Your task to perform on an android device: Search for usb-c to usb-b on costco, select the first entry, and add it to the cart. Image 0: 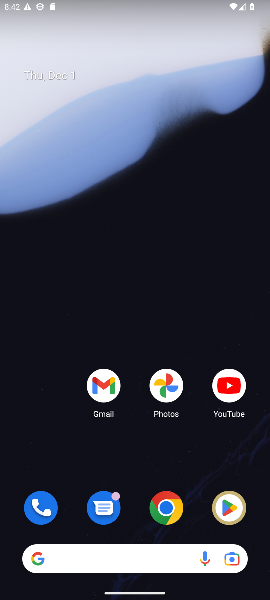
Step 0: click (170, 507)
Your task to perform on an android device: Search for usb-c to usb-b on costco, select the first entry, and add it to the cart. Image 1: 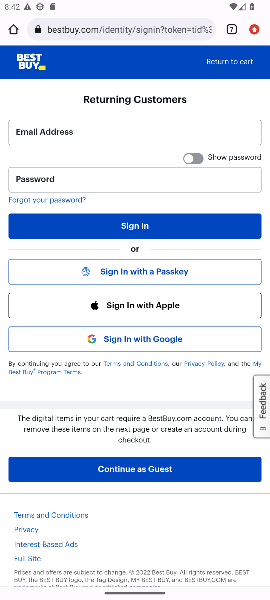
Step 1: click (236, 33)
Your task to perform on an android device: Search for usb-c to usb-b on costco, select the first entry, and add it to the cart. Image 2: 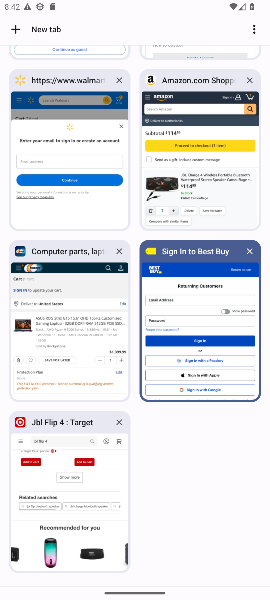
Step 2: drag from (187, 92) to (168, 388)
Your task to perform on an android device: Search for usb-c to usb-b on costco, select the first entry, and add it to the cart. Image 3: 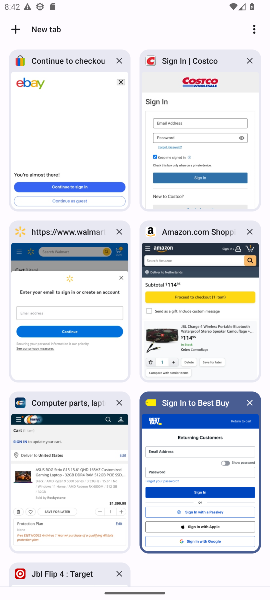
Step 3: click (185, 187)
Your task to perform on an android device: Search for usb-c to usb-b on costco, select the first entry, and add it to the cart. Image 4: 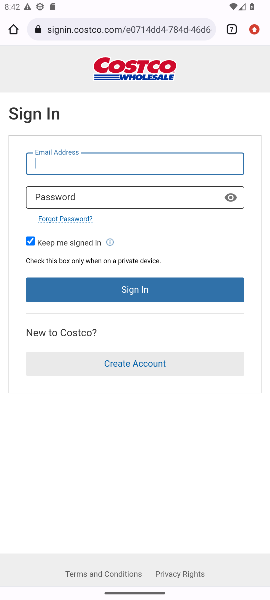
Step 4: press back button
Your task to perform on an android device: Search for usb-c to usb-b on costco, select the first entry, and add it to the cart. Image 5: 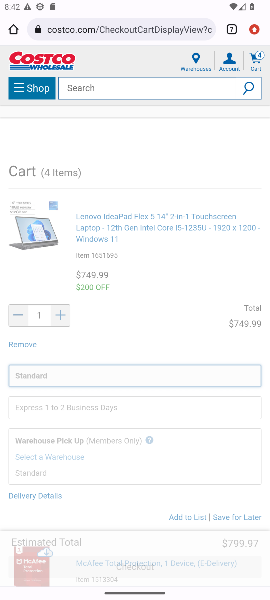
Step 5: click (93, 87)
Your task to perform on an android device: Search for usb-c to usb-b on costco, select the first entry, and add it to the cart. Image 6: 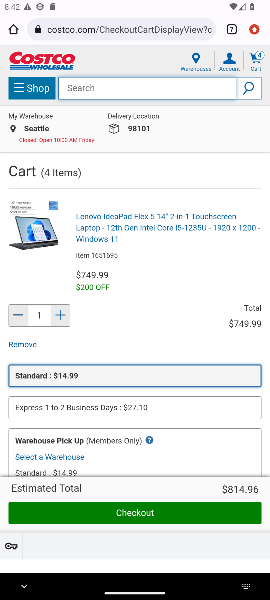
Step 6: type "usb-c to usb-b"
Your task to perform on an android device: Search for usb-c to usb-b on costco, select the first entry, and add it to the cart. Image 7: 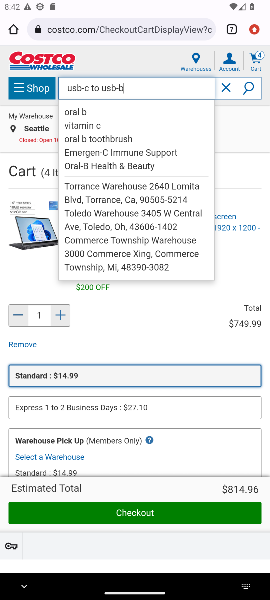
Step 7: click (249, 85)
Your task to perform on an android device: Search for usb-c to usb-b on costco, select the first entry, and add it to the cart. Image 8: 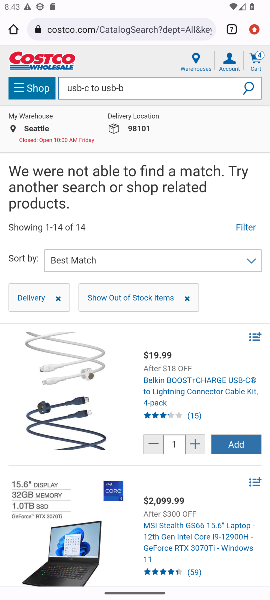
Step 8: click (165, 396)
Your task to perform on an android device: Search for usb-c to usb-b on costco, select the first entry, and add it to the cart. Image 9: 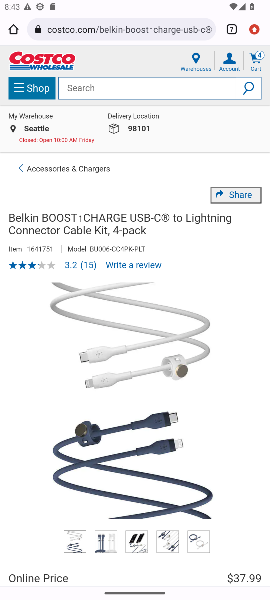
Step 9: task complete